Your task to perform on an android device: Open ESPN.com Image 0: 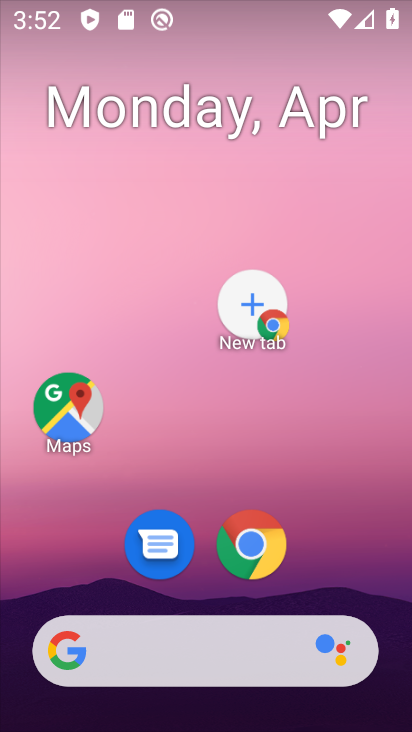
Step 0: click (261, 541)
Your task to perform on an android device: Open ESPN.com Image 1: 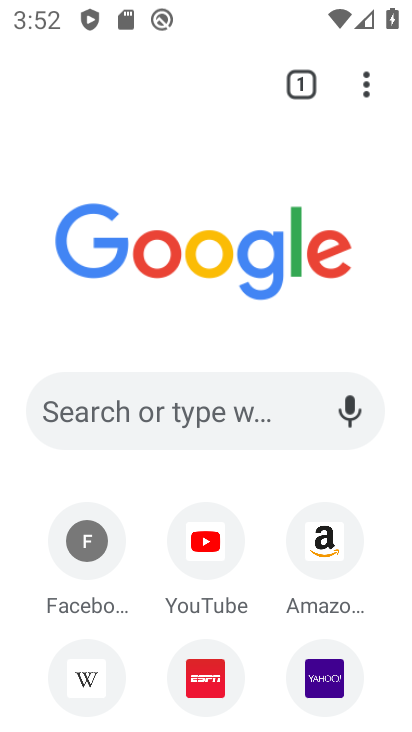
Step 1: drag from (248, 592) to (232, 385)
Your task to perform on an android device: Open ESPN.com Image 2: 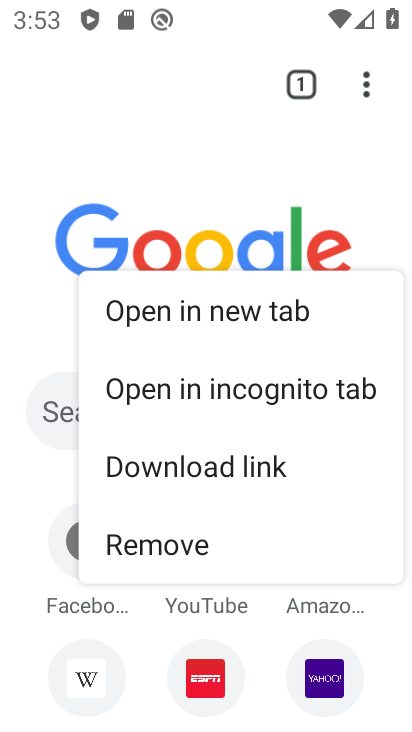
Step 2: click (32, 142)
Your task to perform on an android device: Open ESPN.com Image 3: 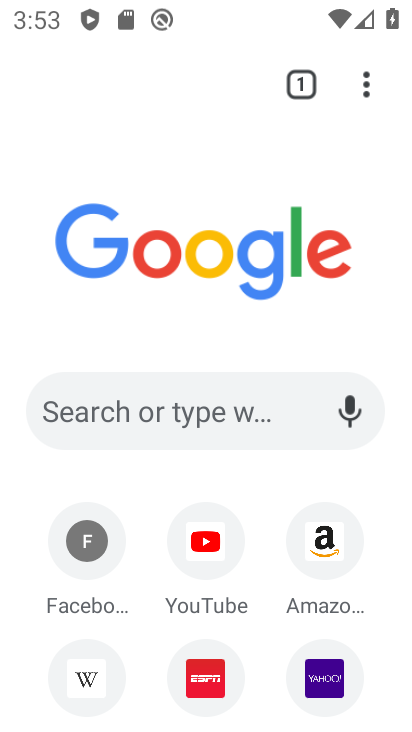
Step 3: click (196, 674)
Your task to perform on an android device: Open ESPN.com Image 4: 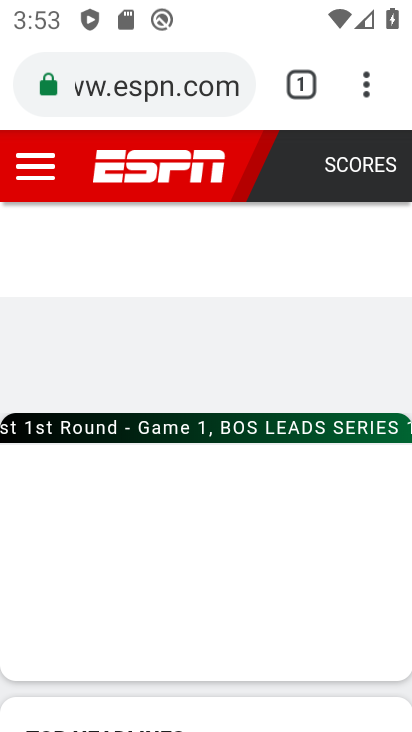
Step 4: task complete